Your task to perform on an android device: Open eBay Image 0: 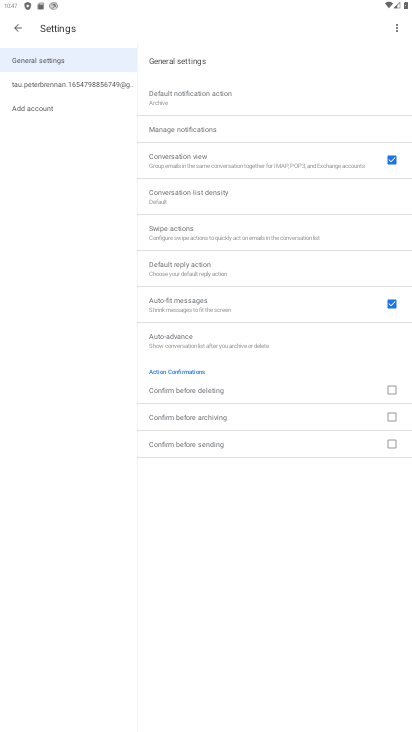
Step 0: press home button
Your task to perform on an android device: Open eBay Image 1: 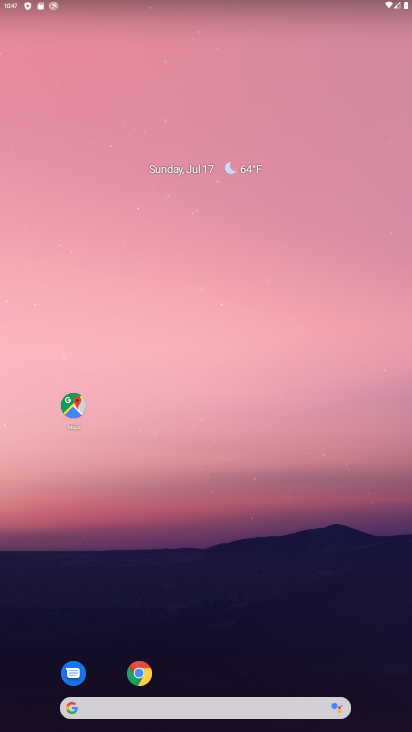
Step 1: click (137, 681)
Your task to perform on an android device: Open eBay Image 2: 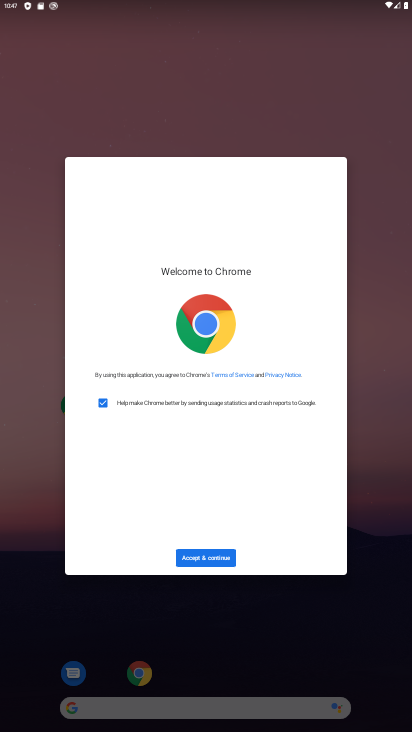
Step 2: click (213, 555)
Your task to perform on an android device: Open eBay Image 3: 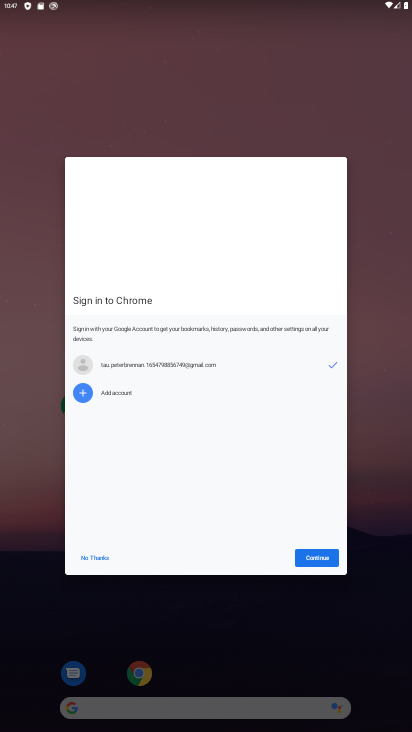
Step 3: click (334, 561)
Your task to perform on an android device: Open eBay Image 4: 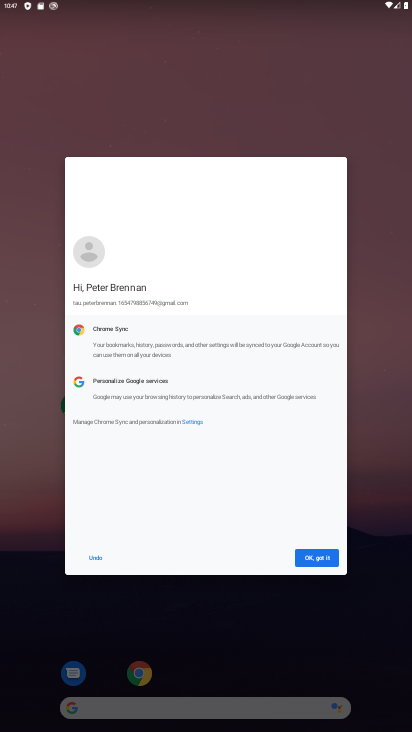
Step 4: click (334, 561)
Your task to perform on an android device: Open eBay Image 5: 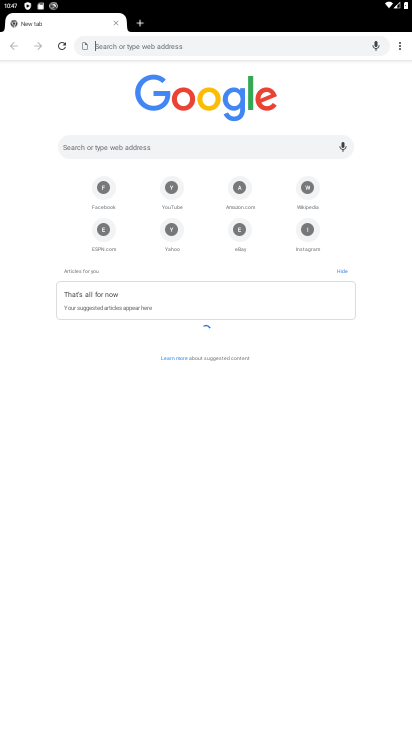
Step 5: click (239, 224)
Your task to perform on an android device: Open eBay Image 6: 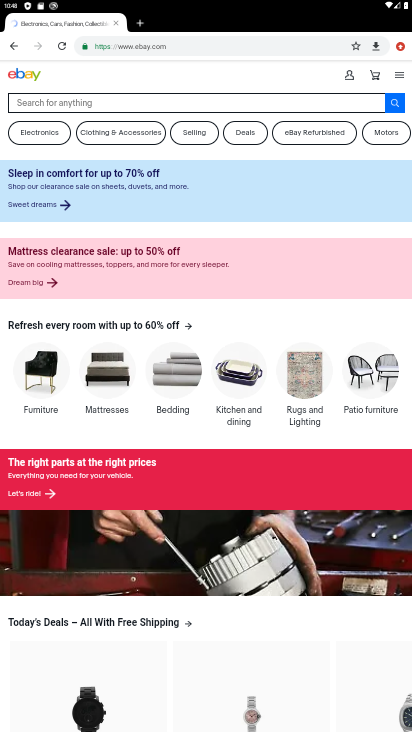
Step 6: task complete